Your task to perform on an android device: Open maps Image 0: 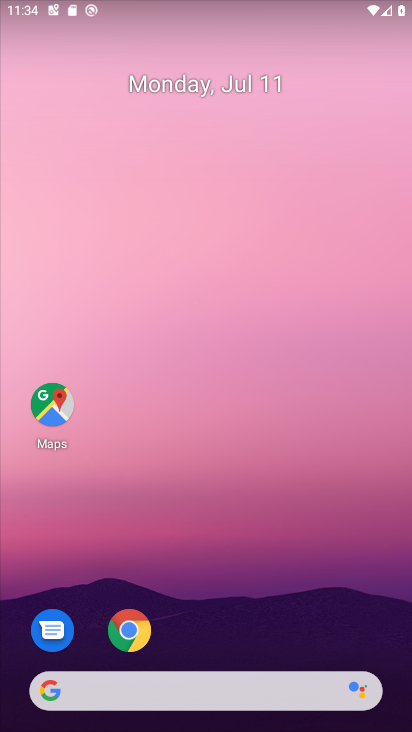
Step 0: click (54, 361)
Your task to perform on an android device: Open maps Image 1: 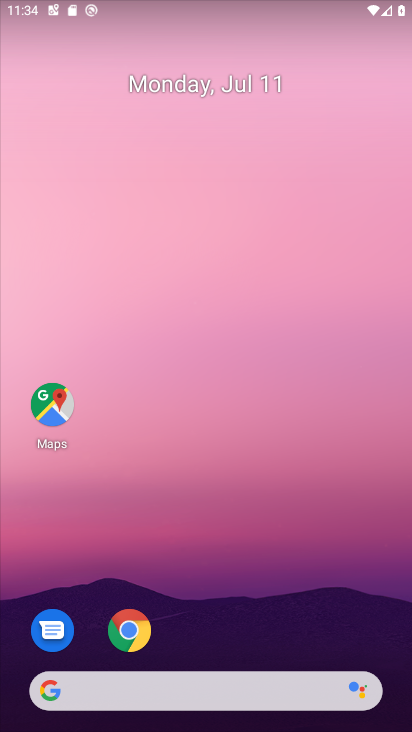
Step 1: click (60, 386)
Your task to perform on an android device: Open maps Image 2: 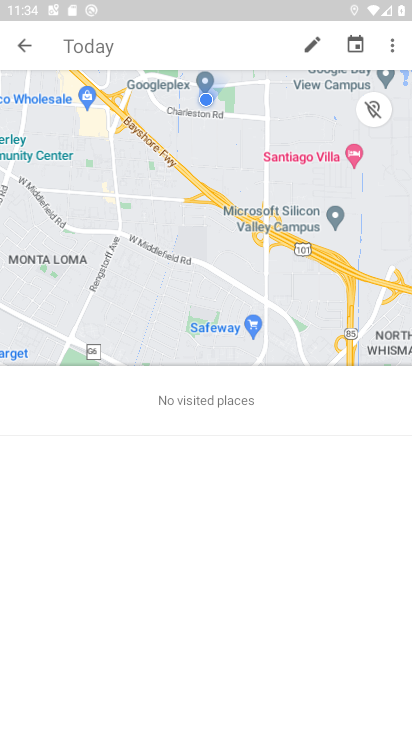
Step 2: click (20, 42)
Your task to perform on an android device: Open maps Image 3: 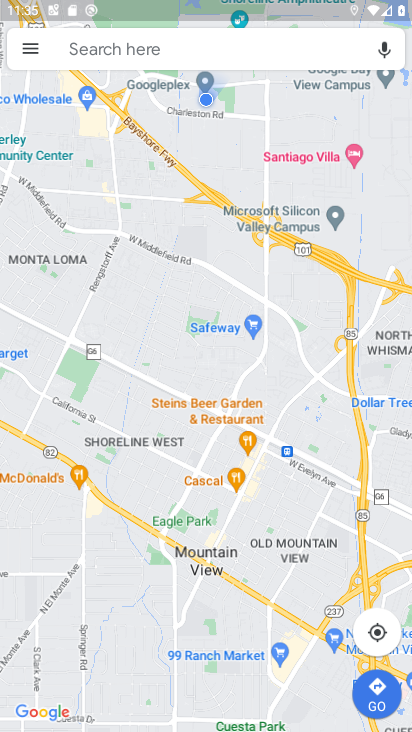
Step 3: task complete